Your task to perform on an android device: Go to wifi settings Image 0: 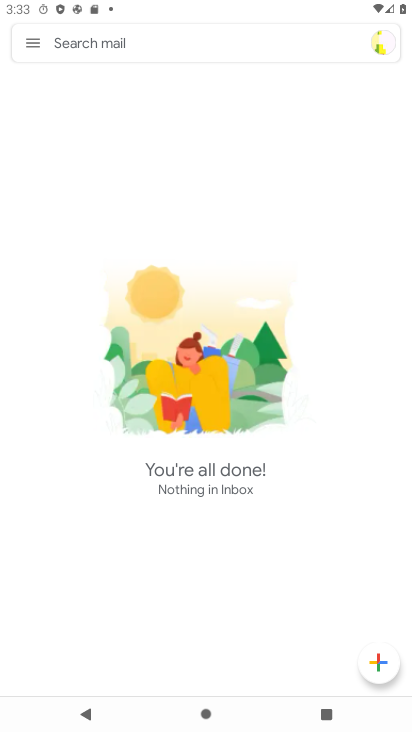
Step 0: click (36, 43)
Your task to perform on an android device: Go to wifi settings Image 1: 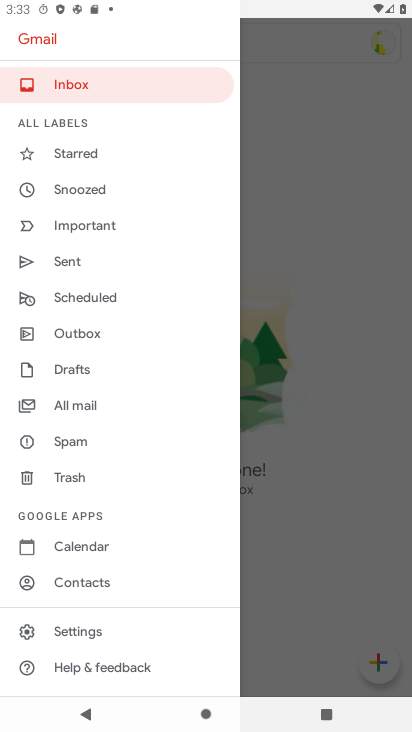
Step 1: click (87, 715)
Your task to perform on an android device: Go to wifi settings Image 2: 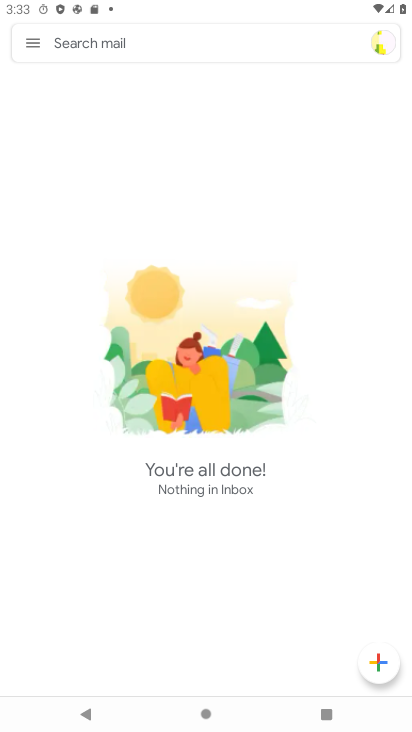
Step 2: click (103, 702)
Your task to perform on an android device: Go to wifi settings Image 3: 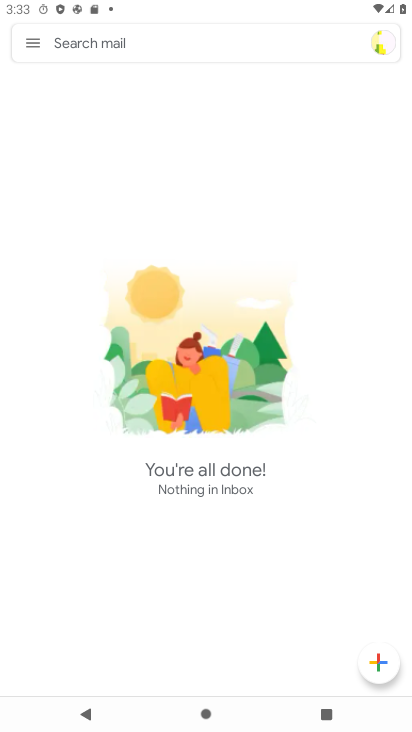
Step 3: click (67, 721)
Your task to perform on an android device: Go to wifi settings Image 4: 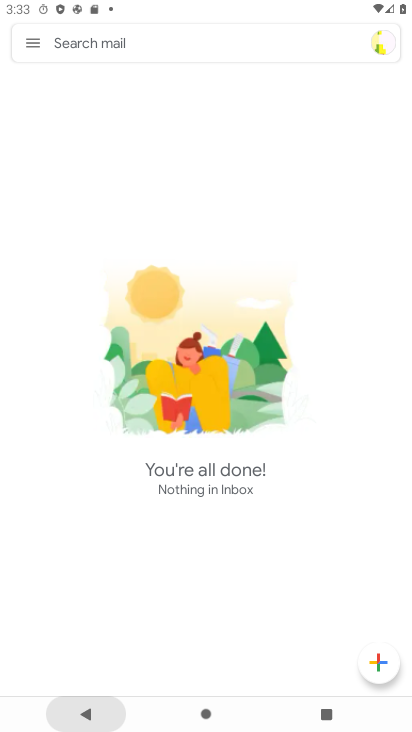
Step 4: click (83, 714)
Your task to perform on an android device: Go to wifi settings Image 5: 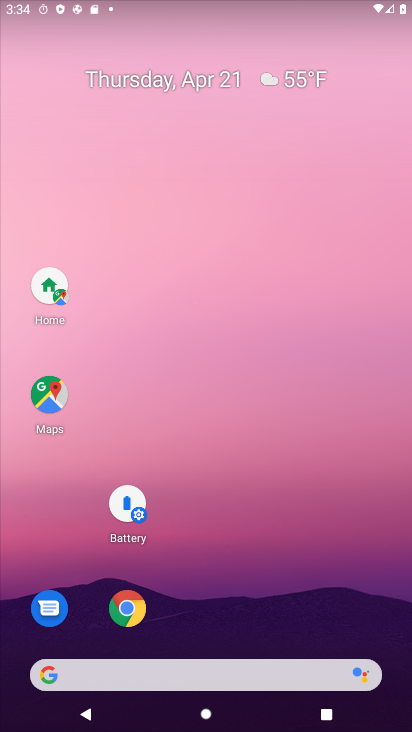
Step 5: drag from (275, 547) to (236, 106)
Your task to perform on an android device: Go to wifi settings Image 6: 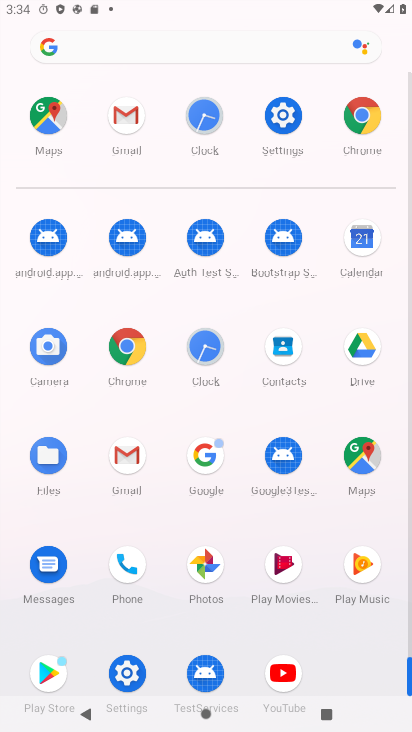
Step 6: click (279, 136)
Your task to perform on an android device: Go to wifi settings Image 7: 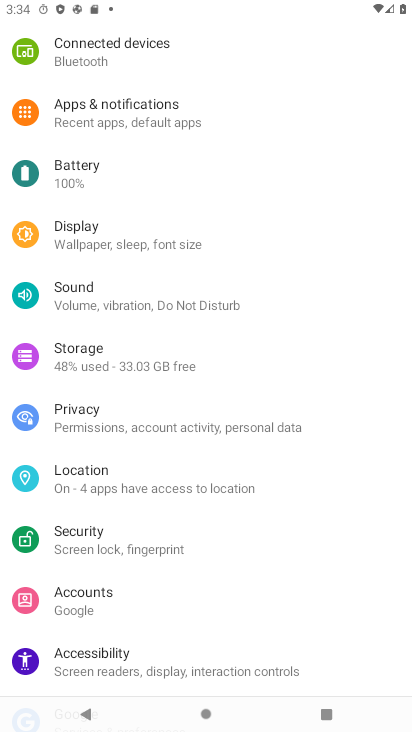
Step 7: drag from (279, 131) to (271, 513)
Your task to perform on an android device: Go to wifi settings Image 8: 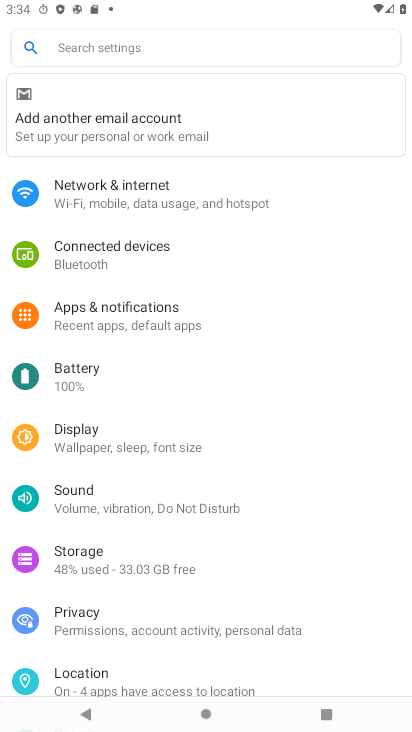
Step 8: click (105, 212)
Your task to perform on an android device: Go to wifi settings Image 9: 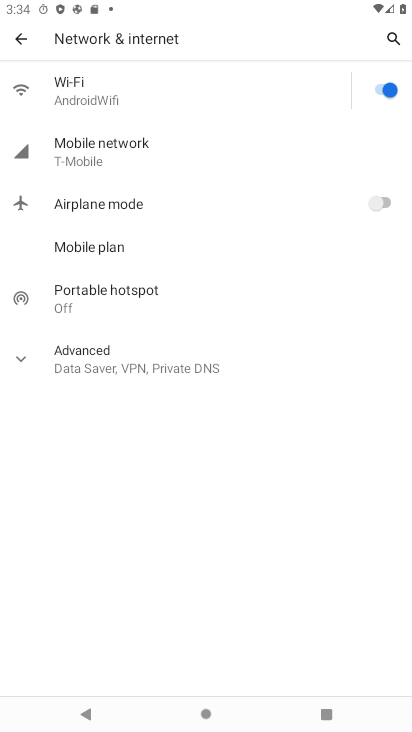
Step 9: click (78, 88)
Your task to perform on an android device: Go to wifi settings Image 10: 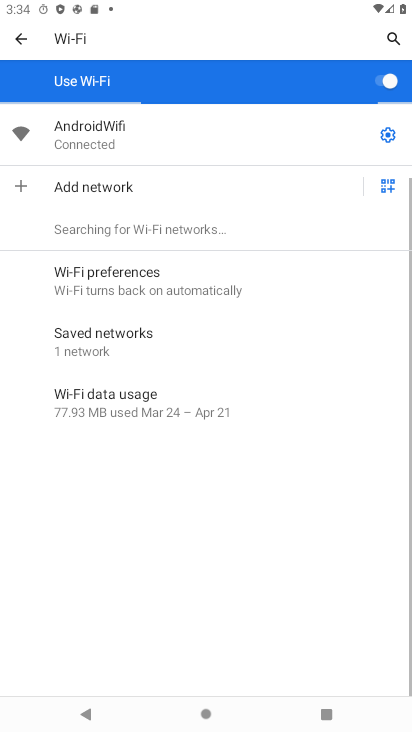
Step 10: task complete